Your task to perform on an android device: set the stopwatch Image 0: 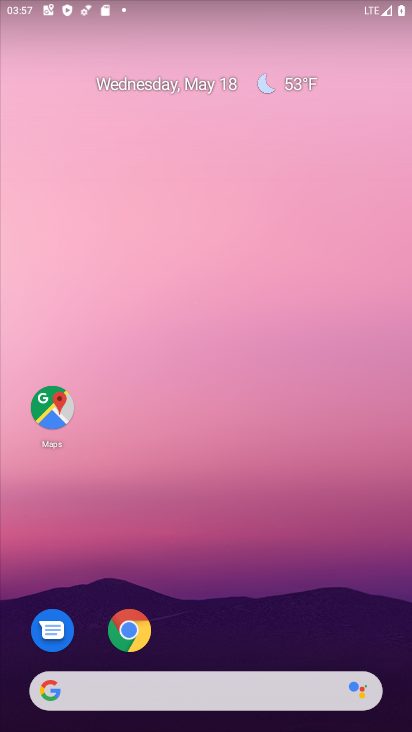
Step 0: drag from (193, 725) to (203, 178)
Your task to perform on an android device: set the stopwatch Image 1: 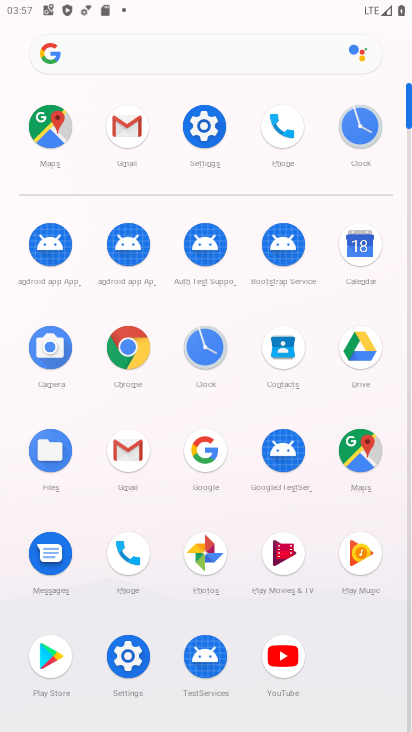
Step 1: click (199, 354)
Your task to perform on an android device: set the stopwatch Image 2: 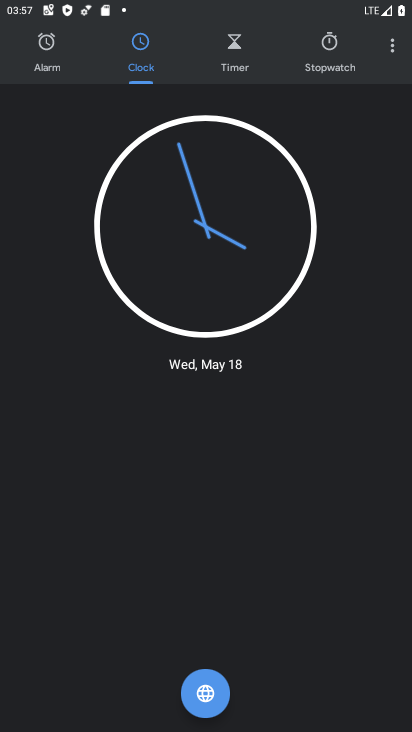
Step 2: click (334, 54)
Your task to perform on an android device: set the stopwatch Image 3: 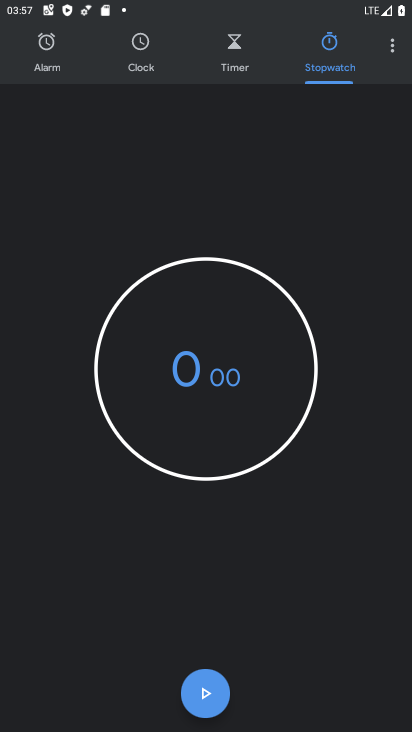
Step 3: click (202, 379)
Your task to perform on an android device: set the stopwatch Image 4: 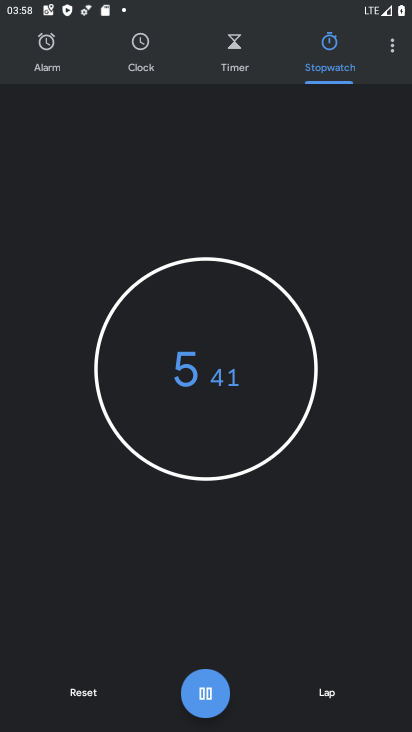
Step 4: type "788"
Your task to perform on an android device: set the stopwatch Image 5: 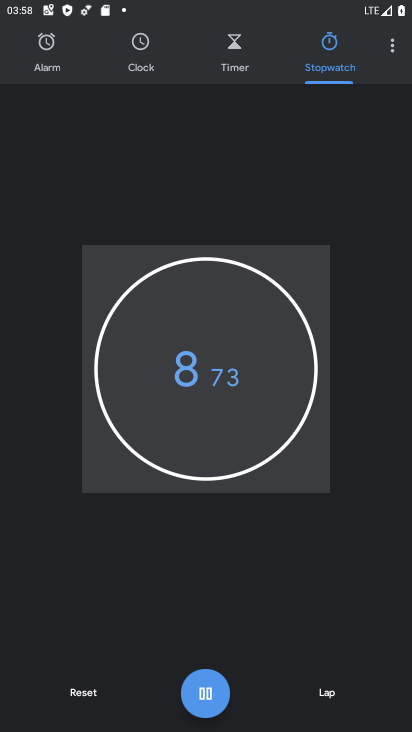
Step 5: task complete